Your task to perform on an android device: change notifications settings Image 0: 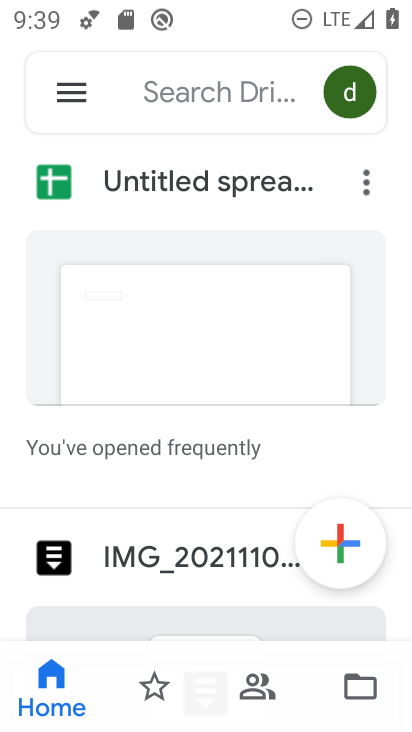
Step 0: press home button
Your task to perform on an android device: change notifications settings Image 1: 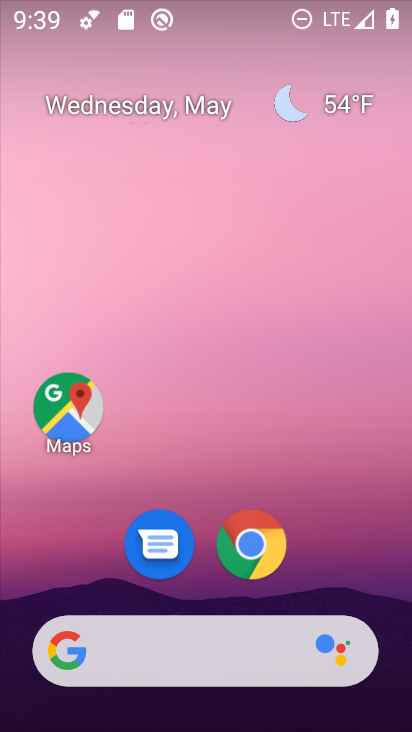
Step 1: drag from (224, 592) to (243, 132)
Your task to perform on an android device: change notifications settings Image 2: 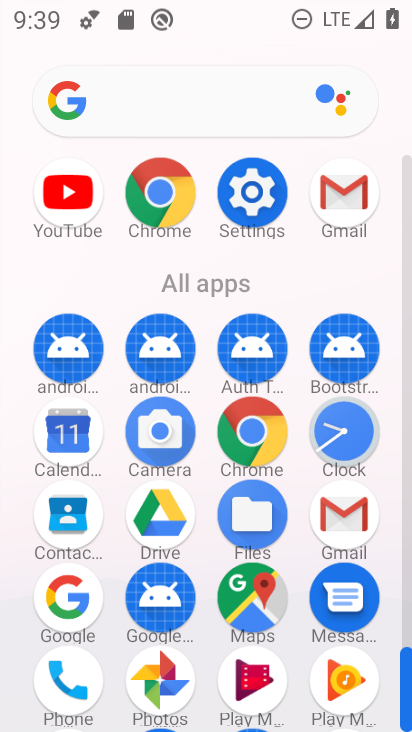
Step 2: click (244, 190)
Your task to perform on an android device: change notifications settings Image 3: 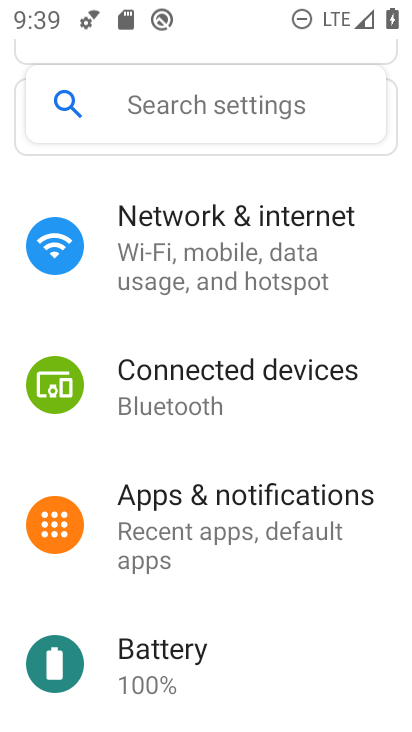
Step 3: click (196, 525)
Your task to perform on an android device: change notifications settings Image 4: 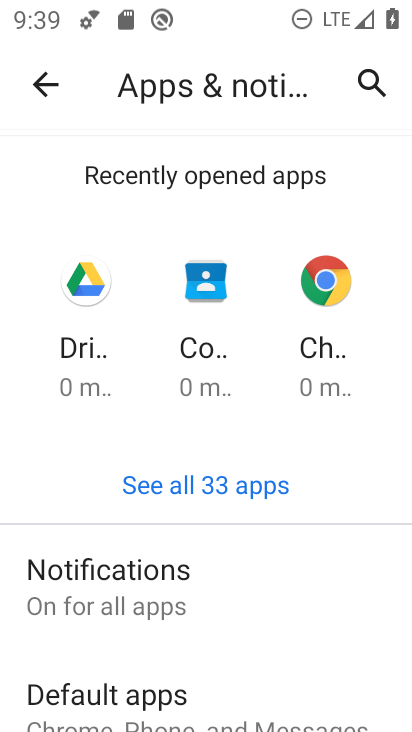
Step 4: click (188, 590)
Your task to perform on an android device: change notifications settings Image 5: 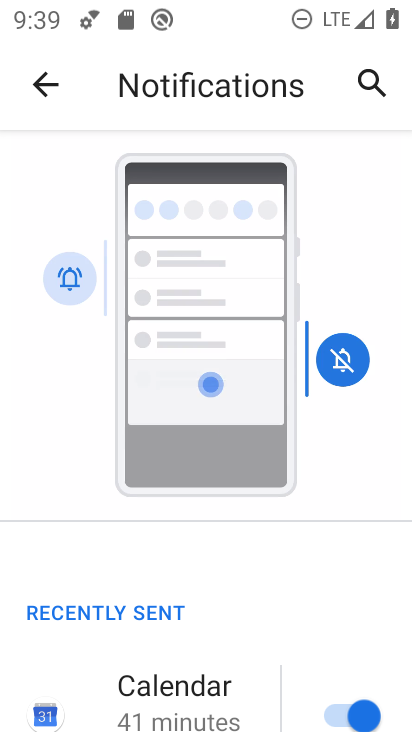
Step 5: drag from (188, 590) to (238, 328)
Your task to perform on an android device: change notifications settings Image 6: 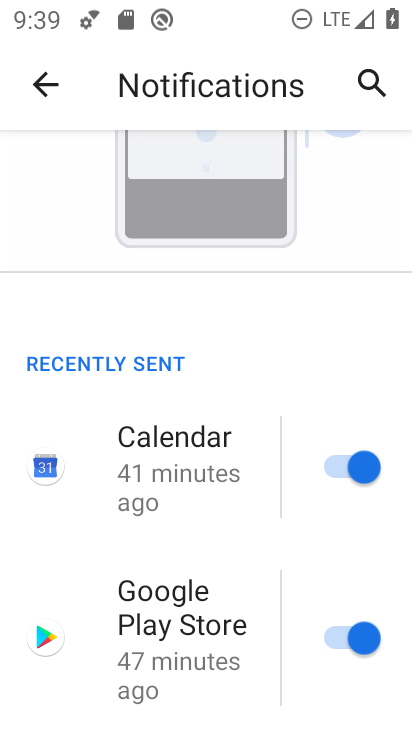
Step 6: drag from (202, 574) to (232, 302)
Your task to perform on an android device: change notifications settings Image 7: 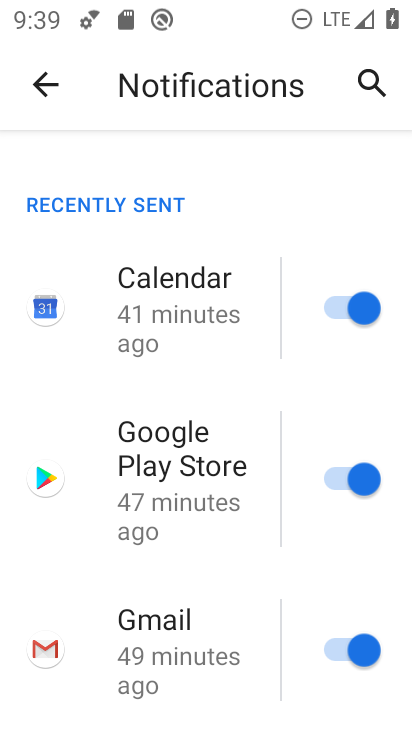
Step 7: drag from (133, 681) to (194, 297)
Your task to perform on an android device: change notifications settings Image 8: 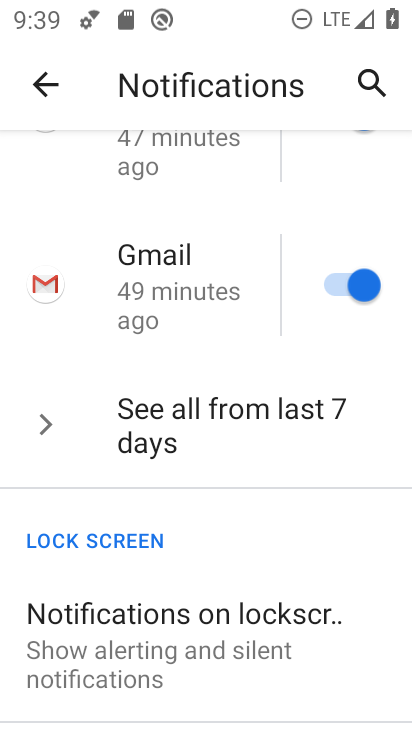
Step 8: drag from (174, 635) to (258, 84)
Your task to perform on an android device: change notifications settings Image 9: 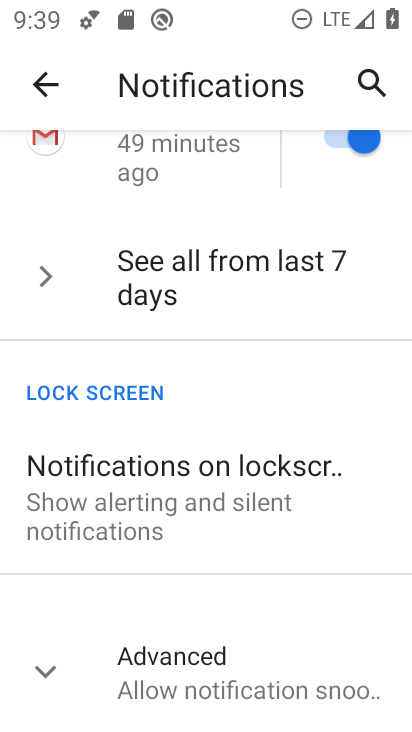
Step 9: click (188, 690)
Your task to perform on an android device: change notifications settings Image 10: 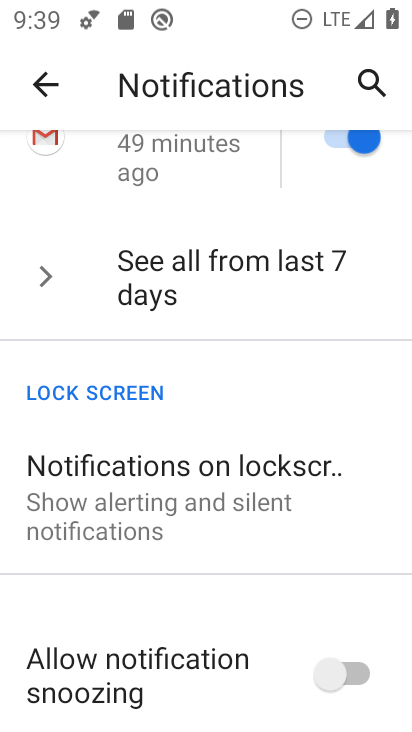
Step 10: drag from (188, 690) to (238, 333)
Your task to perform on an android device: change notifications settings Image 11: 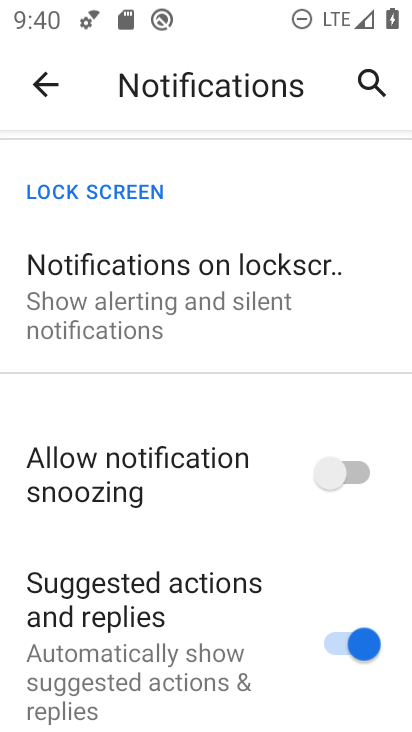
Step 11: click (353, 642)
Your task to perform on an android device: change notifications settings Image 12: 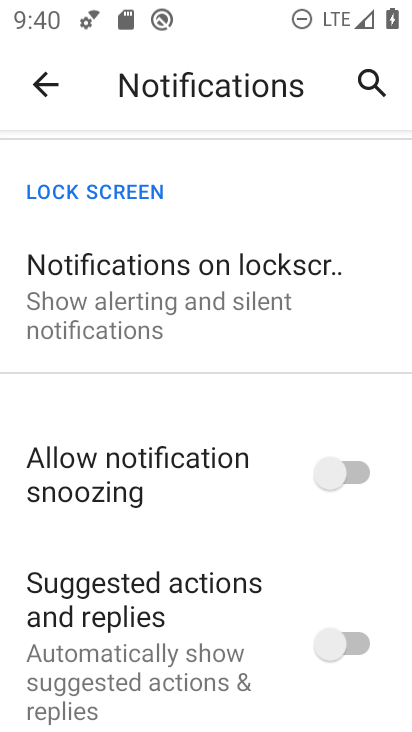
Step 12: click (327, 500)
Your task to perform on an android device: change notifications settings Image 13: 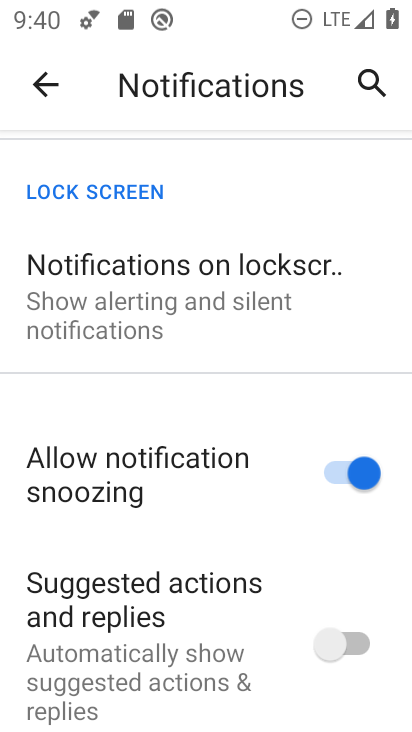
Step 13: task complete